Your task to perform on an android device: Open calendar and show me the first week of next month Image 0: 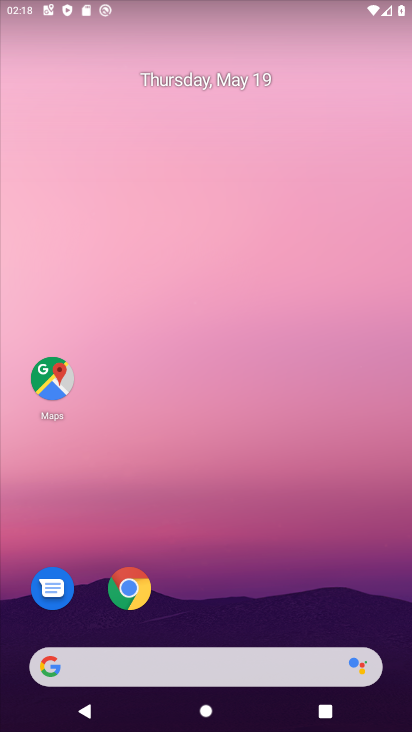
Step 0: drag from (204, 560) to (221, 130)
Your task to perform on an android device: Open calendar and show me the first week of next month Image 1: 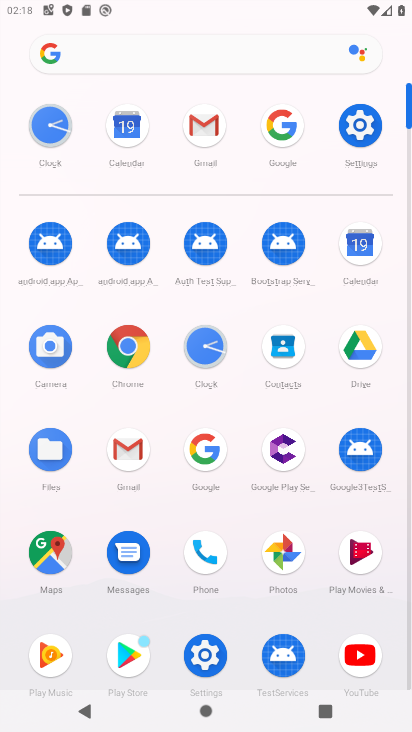
Step 1: click (359, 249)
Your task to perform on an android device: Open calendar and show me the first week of next month Image 2: 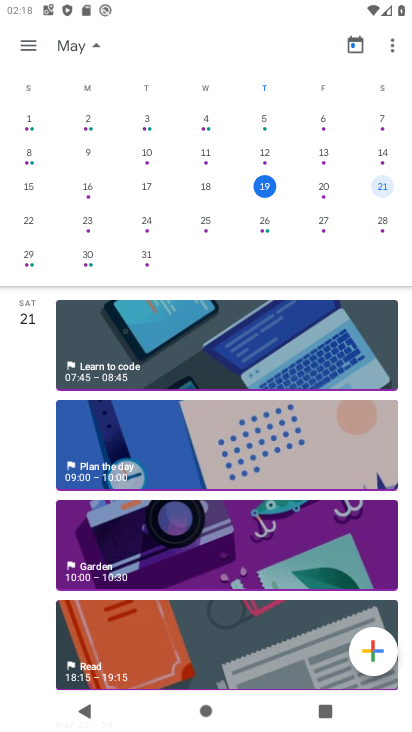
Step 2: drag from (380, 256) to (52, 225)
Your task to perform on an android device: Open calendar and show me the first week of next month Image 3: 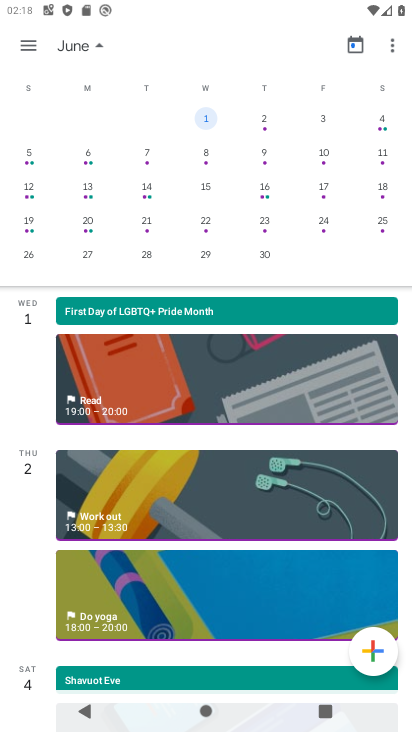
Step 3: click (321, 119)
Your task to perform on an android device: Open calendar and show me the first week of next month Image 4: 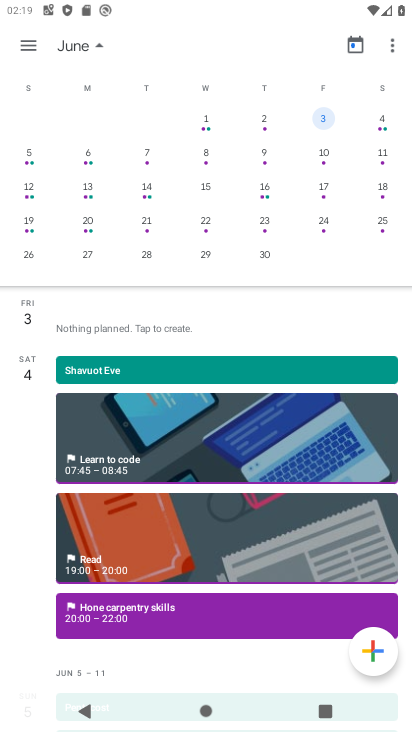
Step 4: task complete